Your task to perform on an android device: What's the weather going to be this weekend? Image 0: 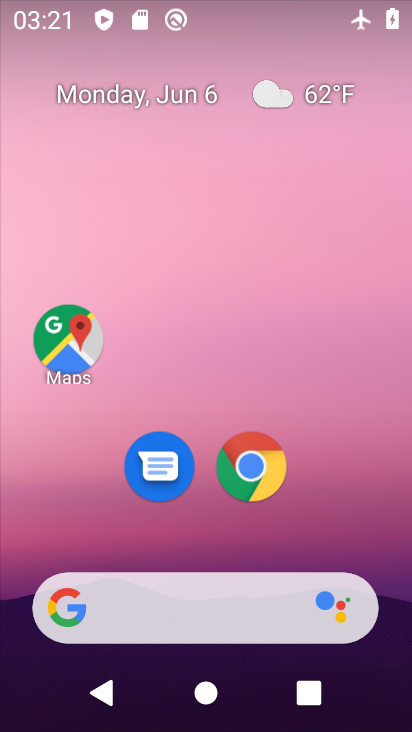
Step 0: click (325, 94)
Your task to perform on an android device: What's the weather going to be this weekend? Image 1: 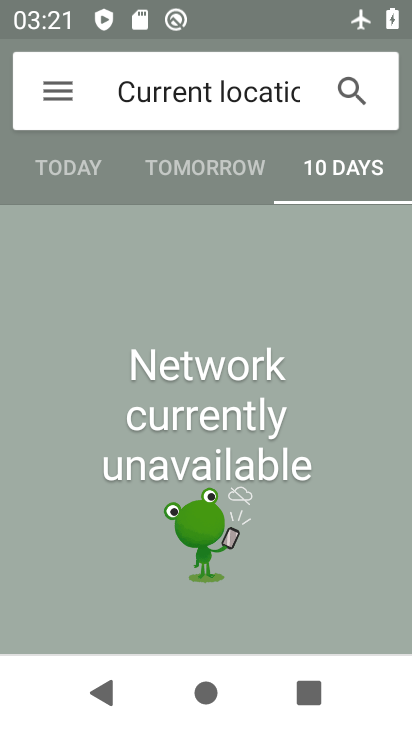
Step 1: task complete